Your task to perform on an android device: Open display settings Image 0: 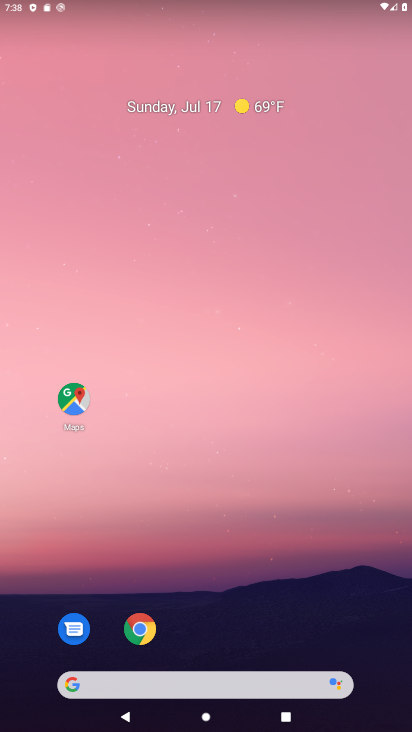
Step 0: drag from (239, 657) to (249, 138)
Your task to perform on an android device: Open display settings Image 1: 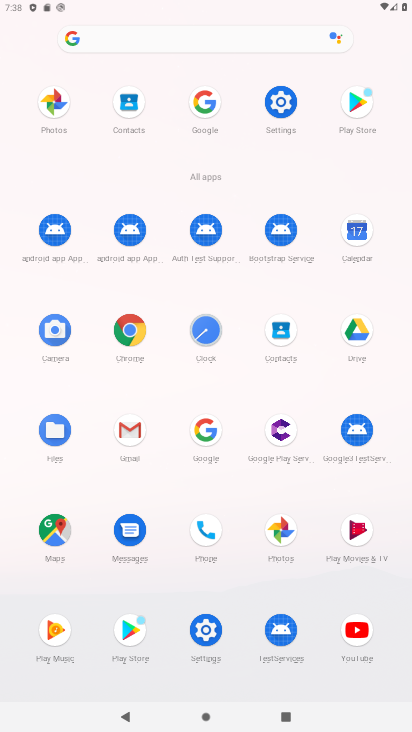
Step 1: click (284, 102)
Your task to perform on an android device: Open display settings Image 2: 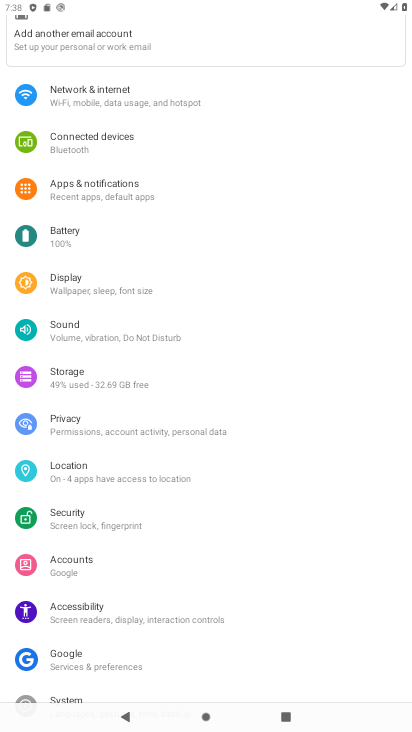
Step 2: click (81, 289)
Your task to perform on an android device: Open display settings Image 3: 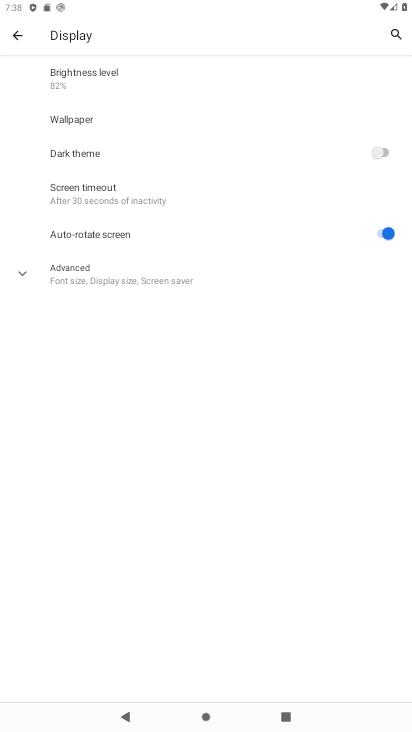
Step 3: task complete